Your task to perform on an android device: add a contact in the contacts app Image 0: 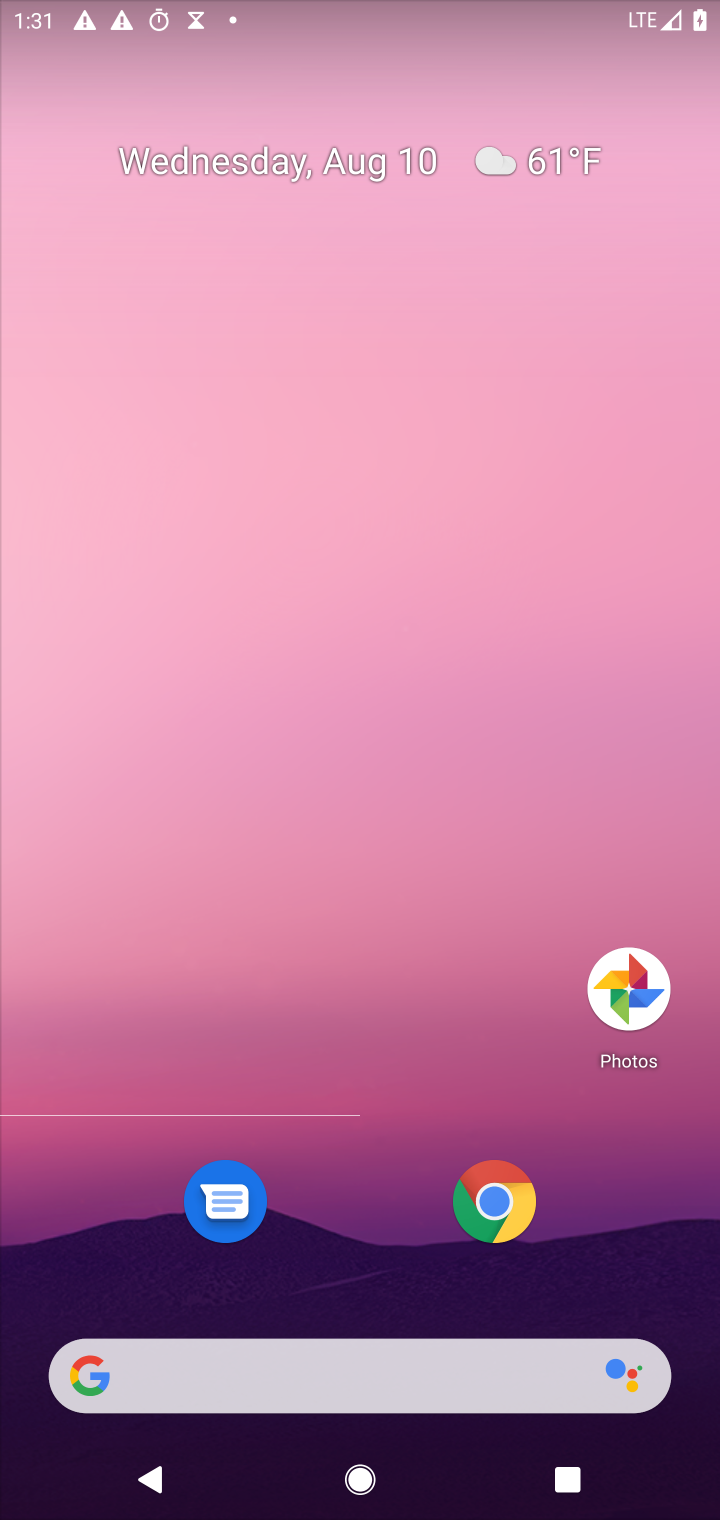
Step 0: press home button
Your task to perform on an android device: add a contact in the contacts app Image 1: 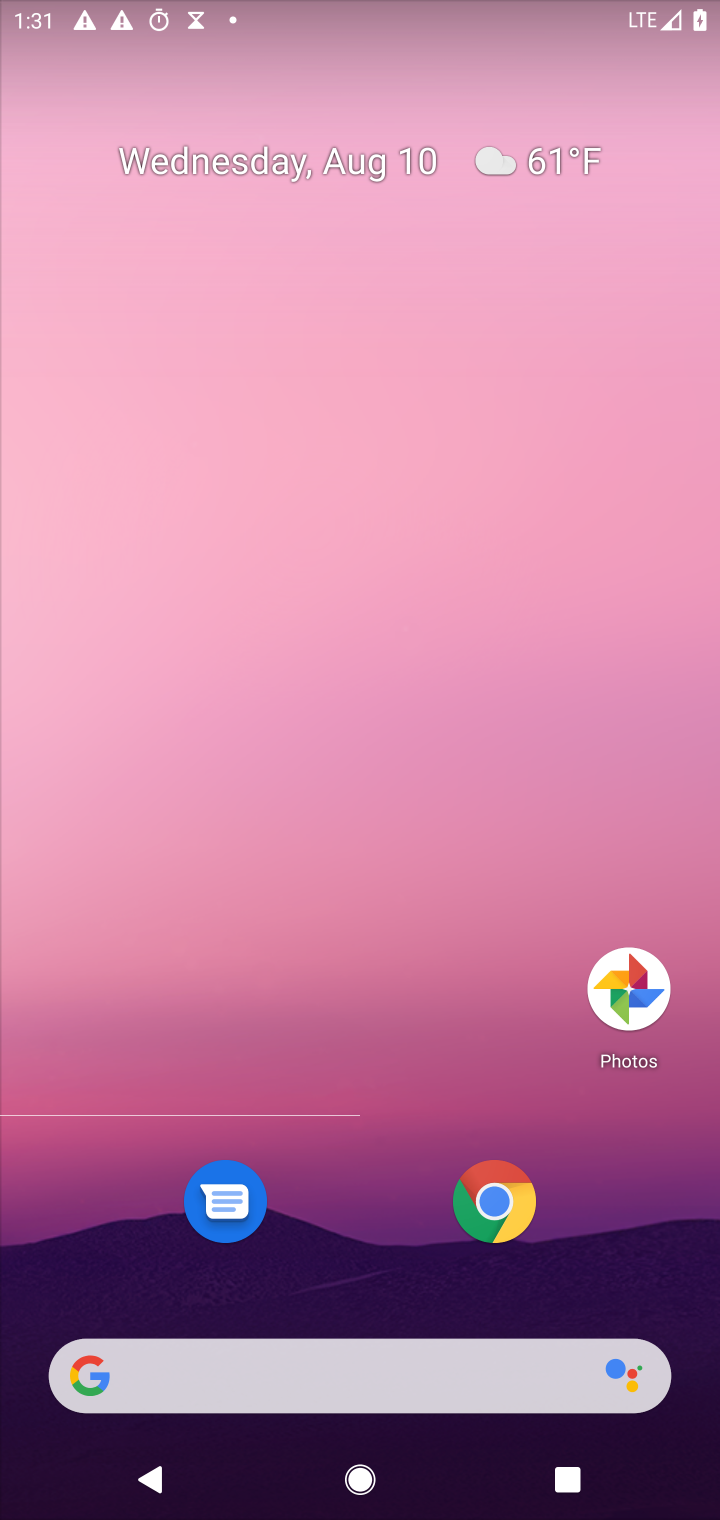
Step 1: drag from (282, 187) to (278, 87)
Your task to perform on an android device: add a contact in the contacts app Image 2: 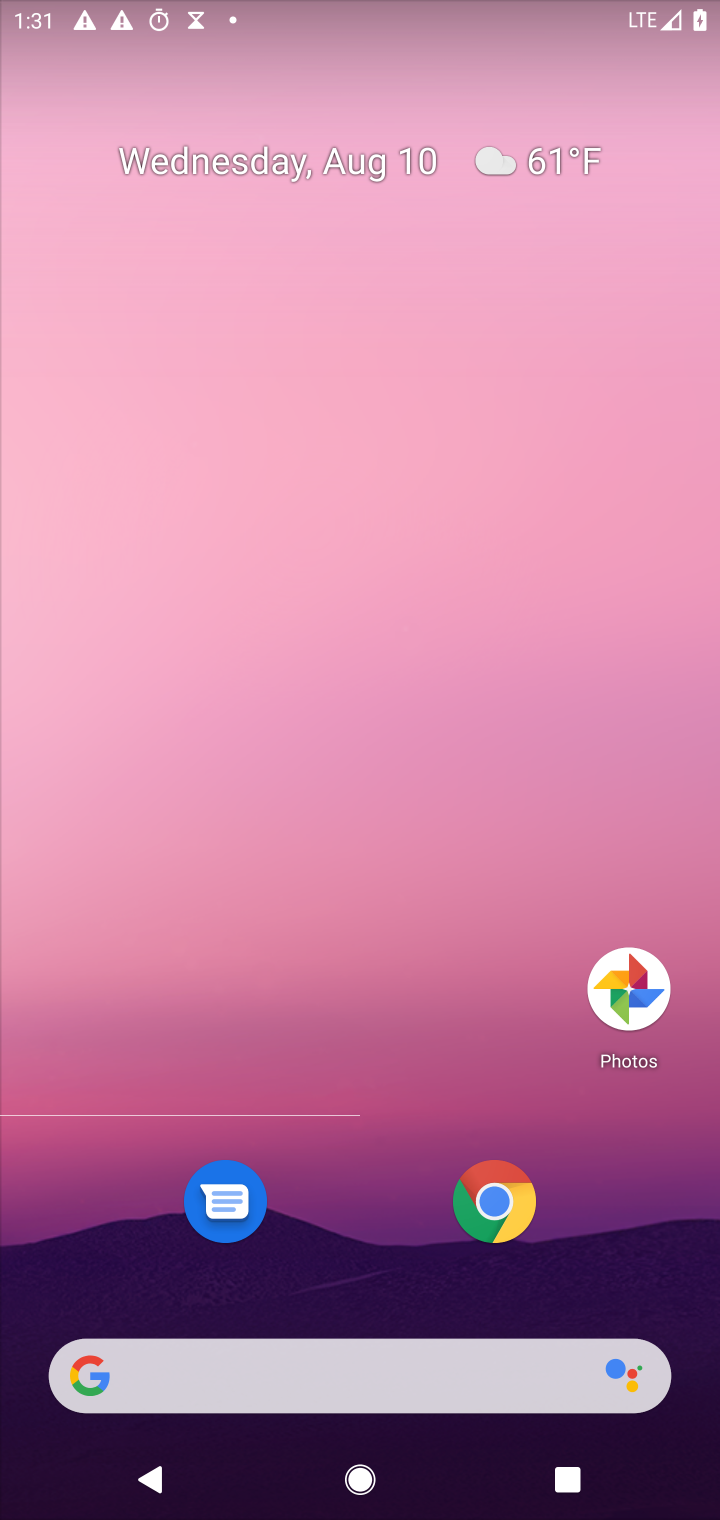
Step 2: drag from (291, 782) to (314, 142)
Your task to perform on an android device: add a contact in the contacts app Image 3: 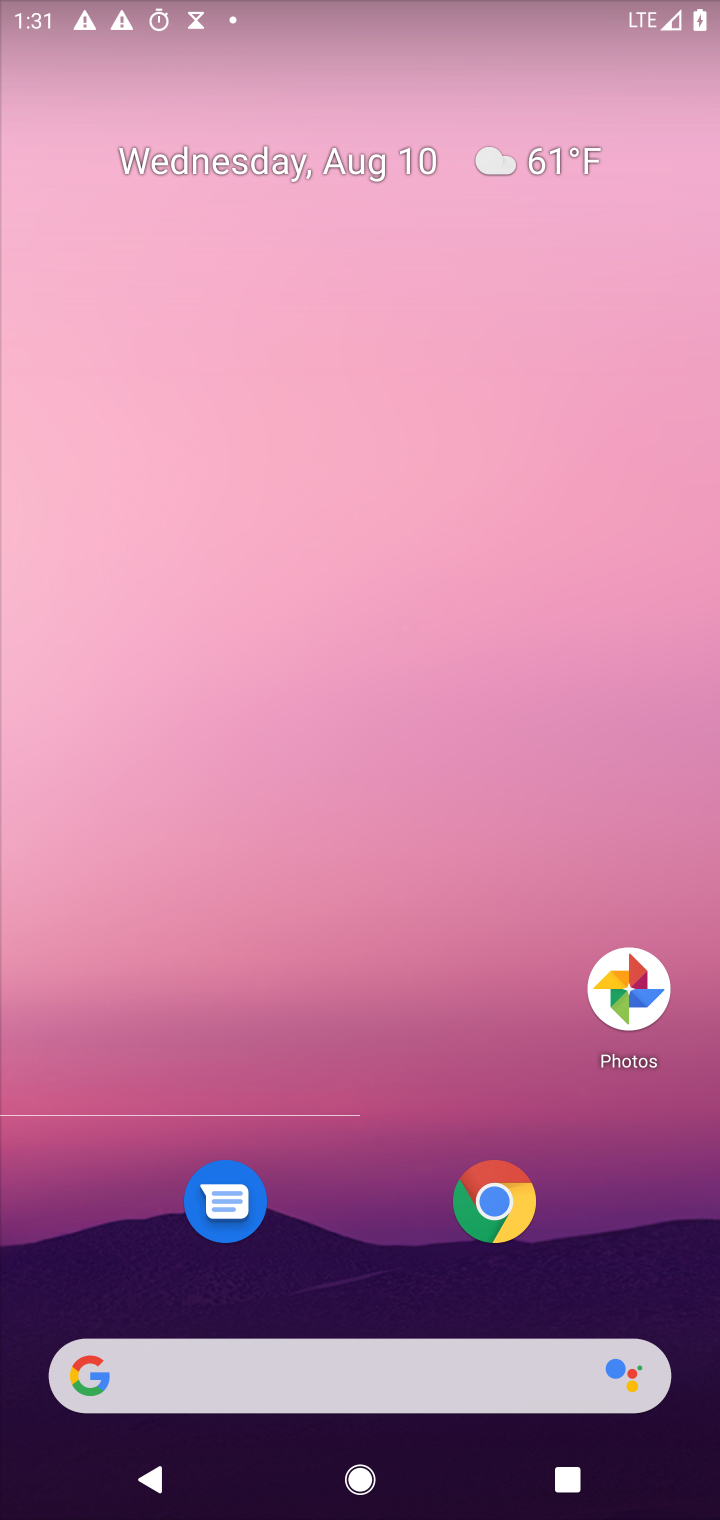
Step 3: drag from (298, 345) to (301, 22)
Your task to perform on an android device: add a contact in the contacts app Image 4: 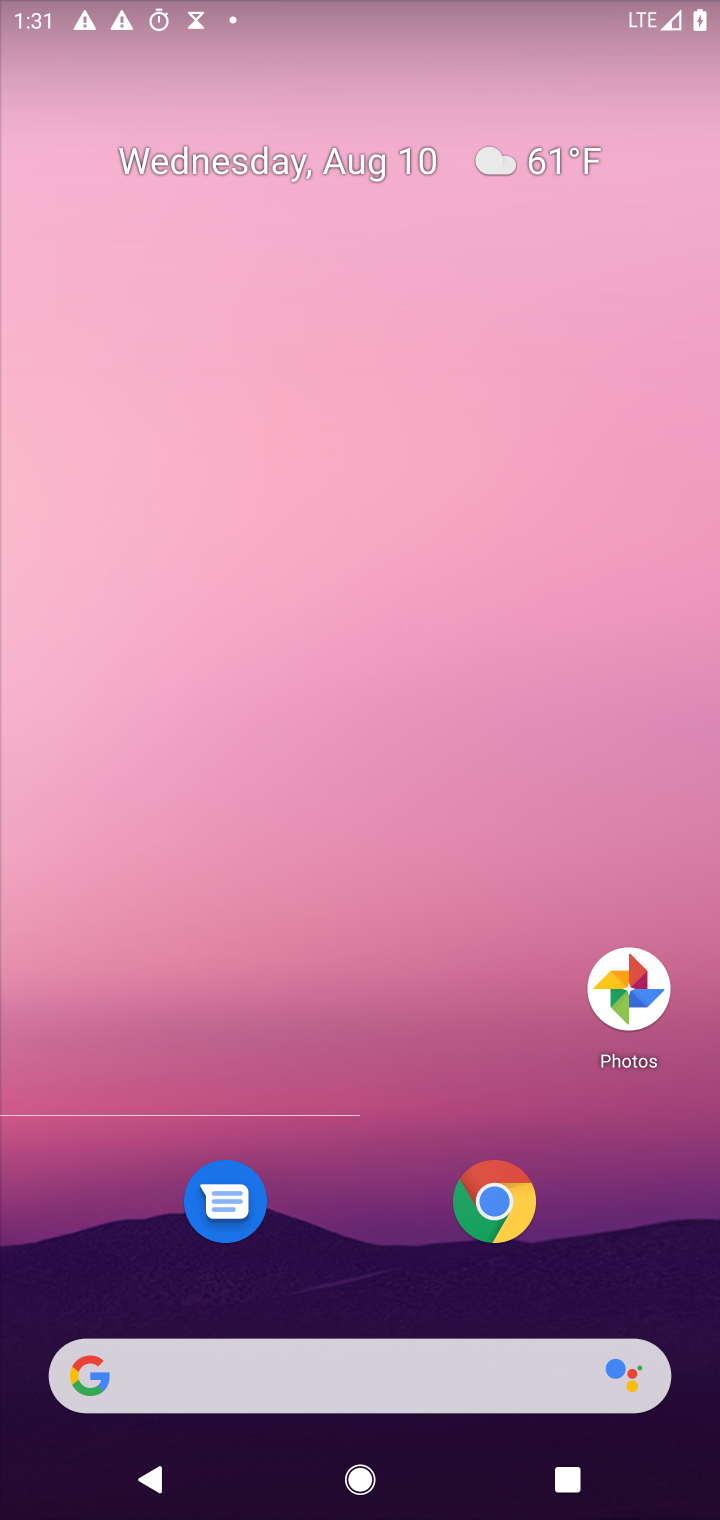
Step 4: drag from (280, 1198) to (309, 22)
Your task to perform on an android device: add a contact in the contacts app Image 5: 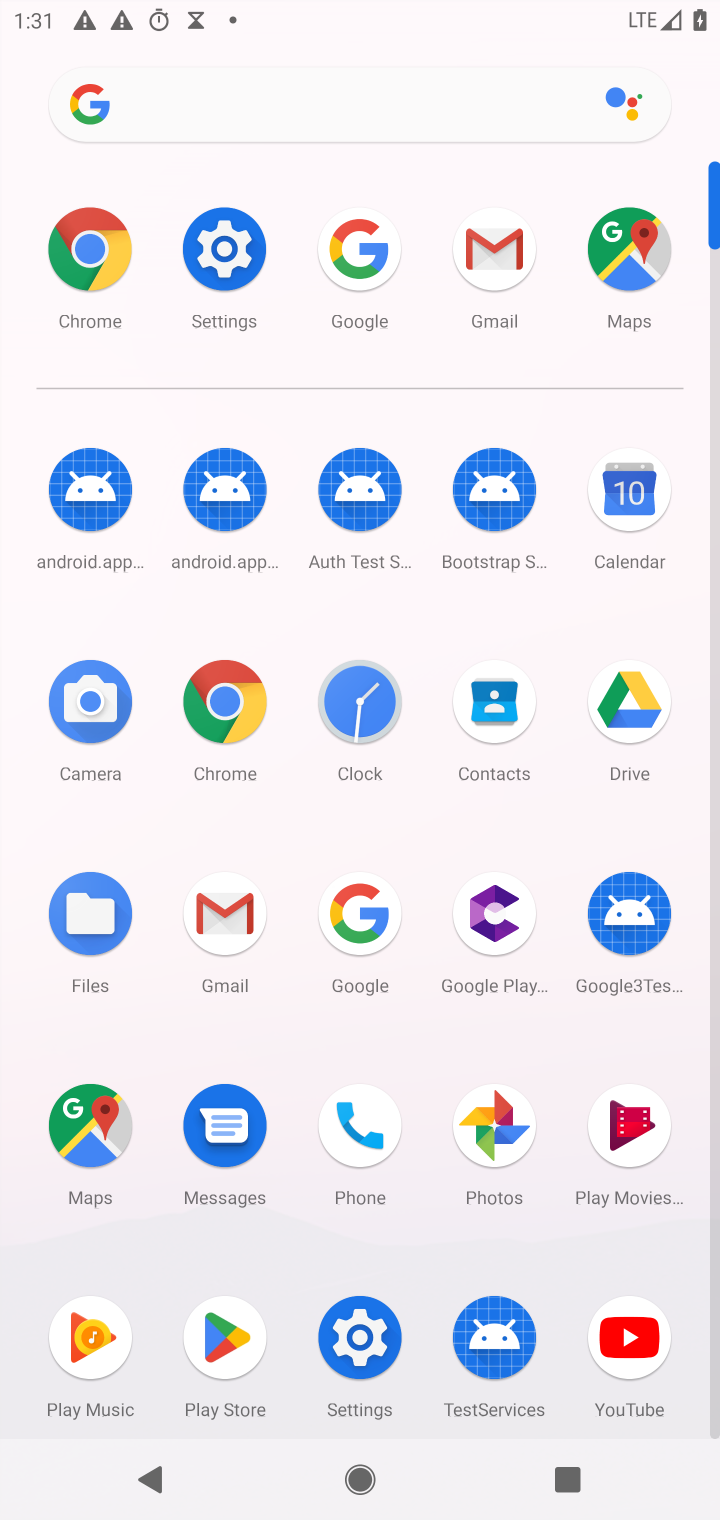
Step 5: click (486, 698)
Your task to perform on an android device: add a contact in the contacts app Image 6: 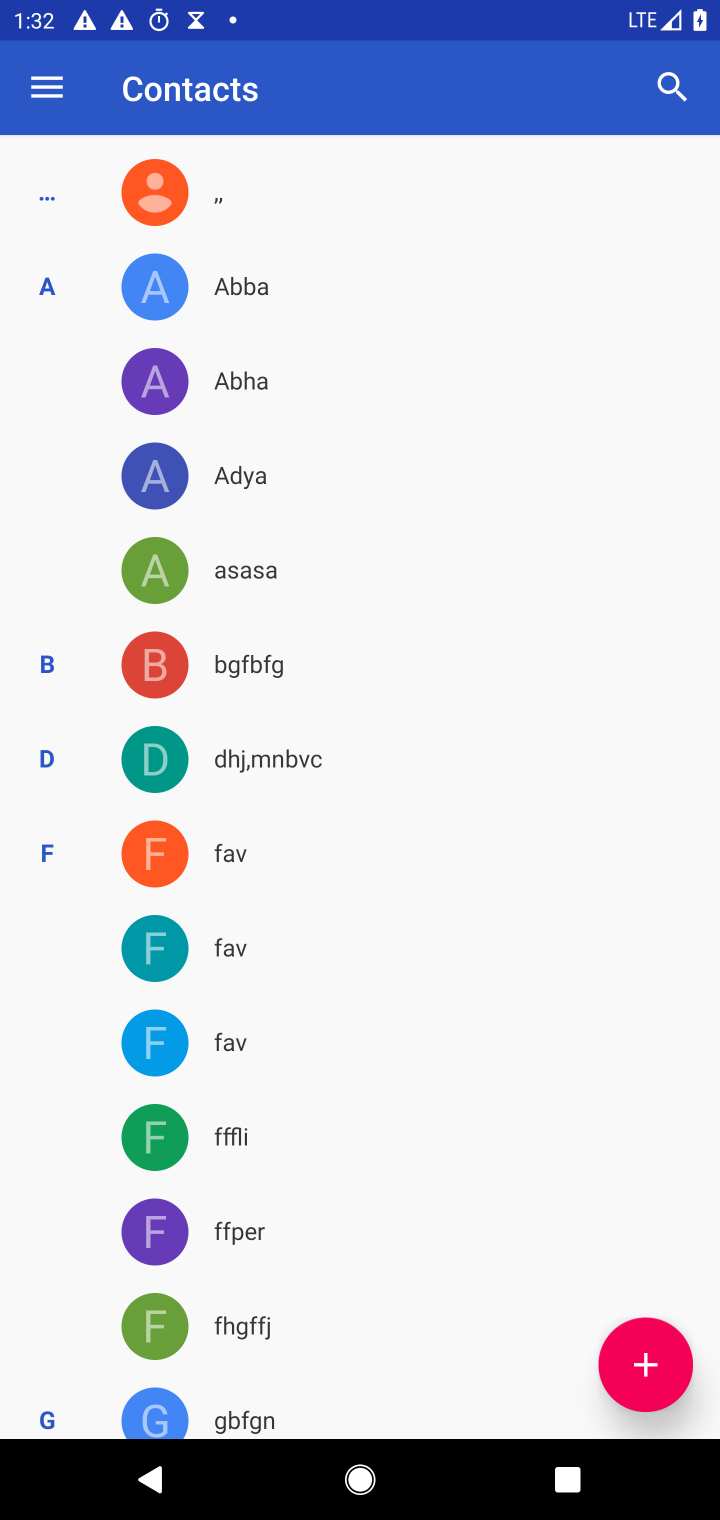
Step 6: click (650, 1369)
Your task to perform on an android device: add a contact in the contacts app Image 7: 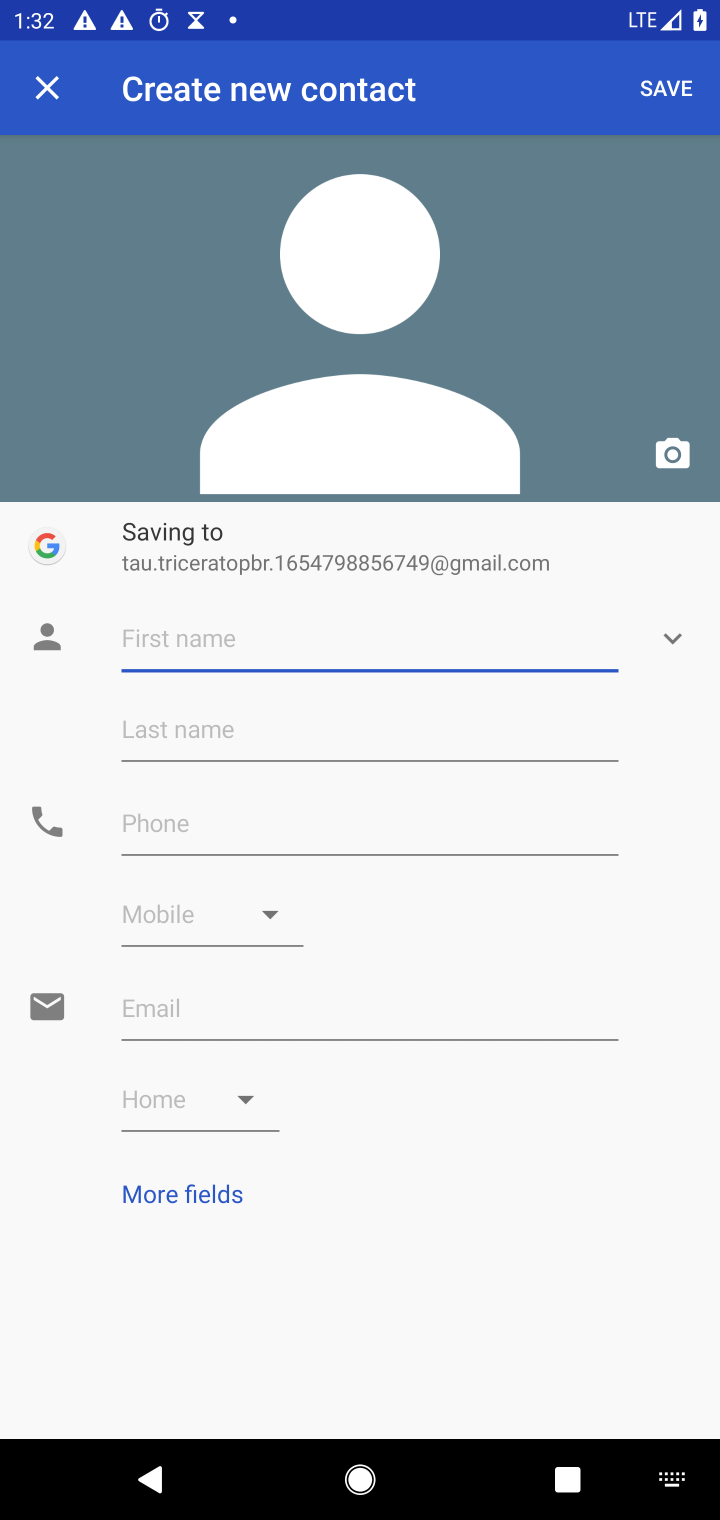
Step 7: type "sffsfsfsfsff"
Your task to perform on an android device: add a contact in the contacts app Image 8: 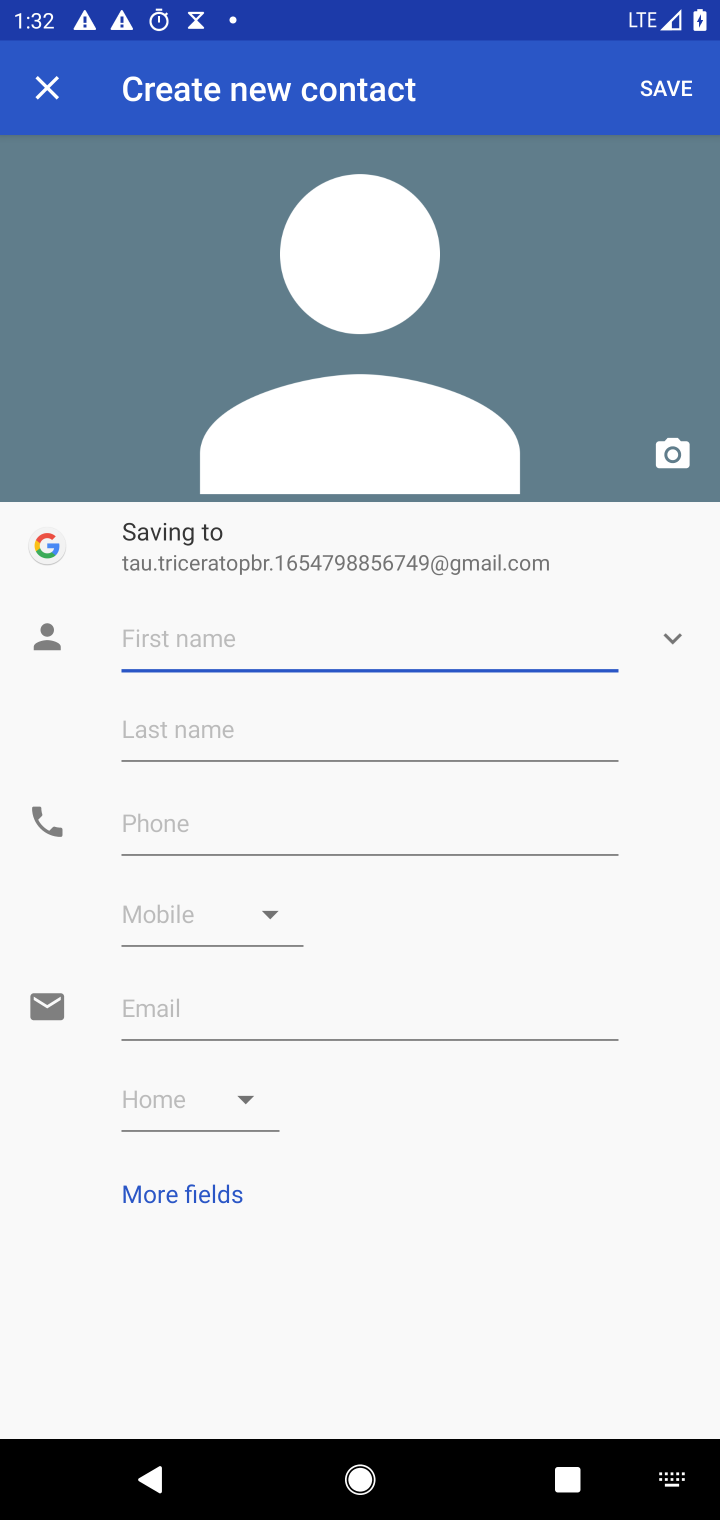
Step 8: click (181, 643)
Your task to perform on an android device: add a contact in the contacts app Image 9: 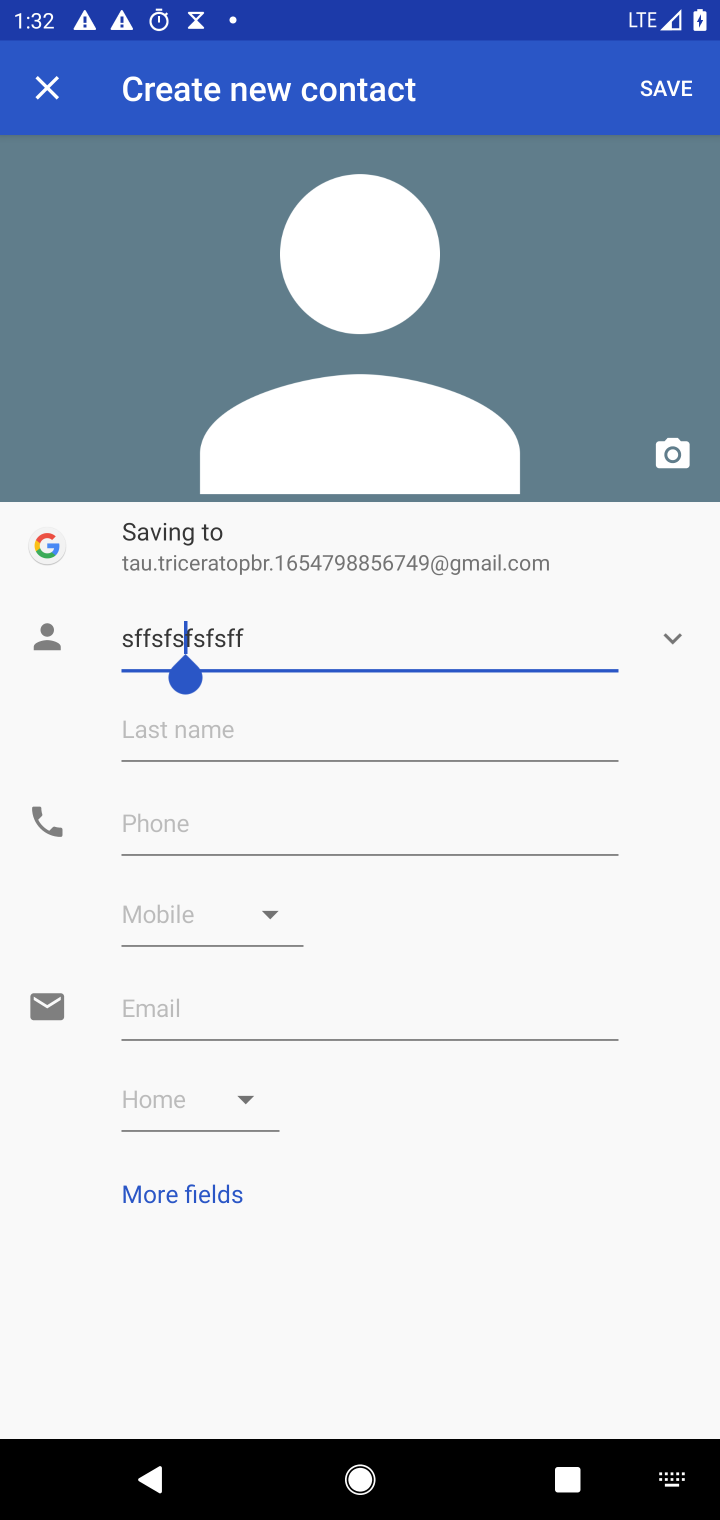
Step 9: click (207, 820)
Your task to perform on an android device: add a contact in the contacts app Image 10: 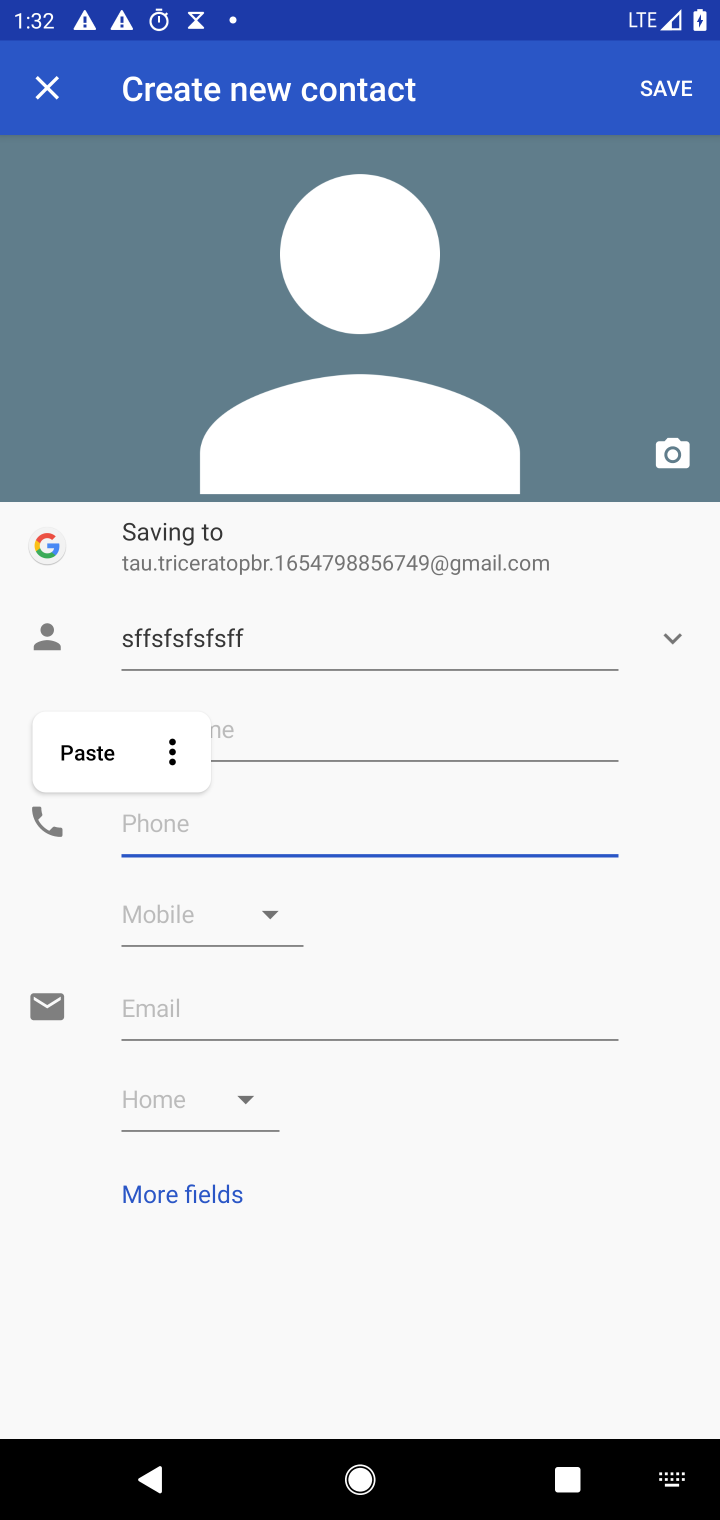
Step 10: type "332324422224"
Your task to perform on an android device: add a contact in the contacts app Image 11: 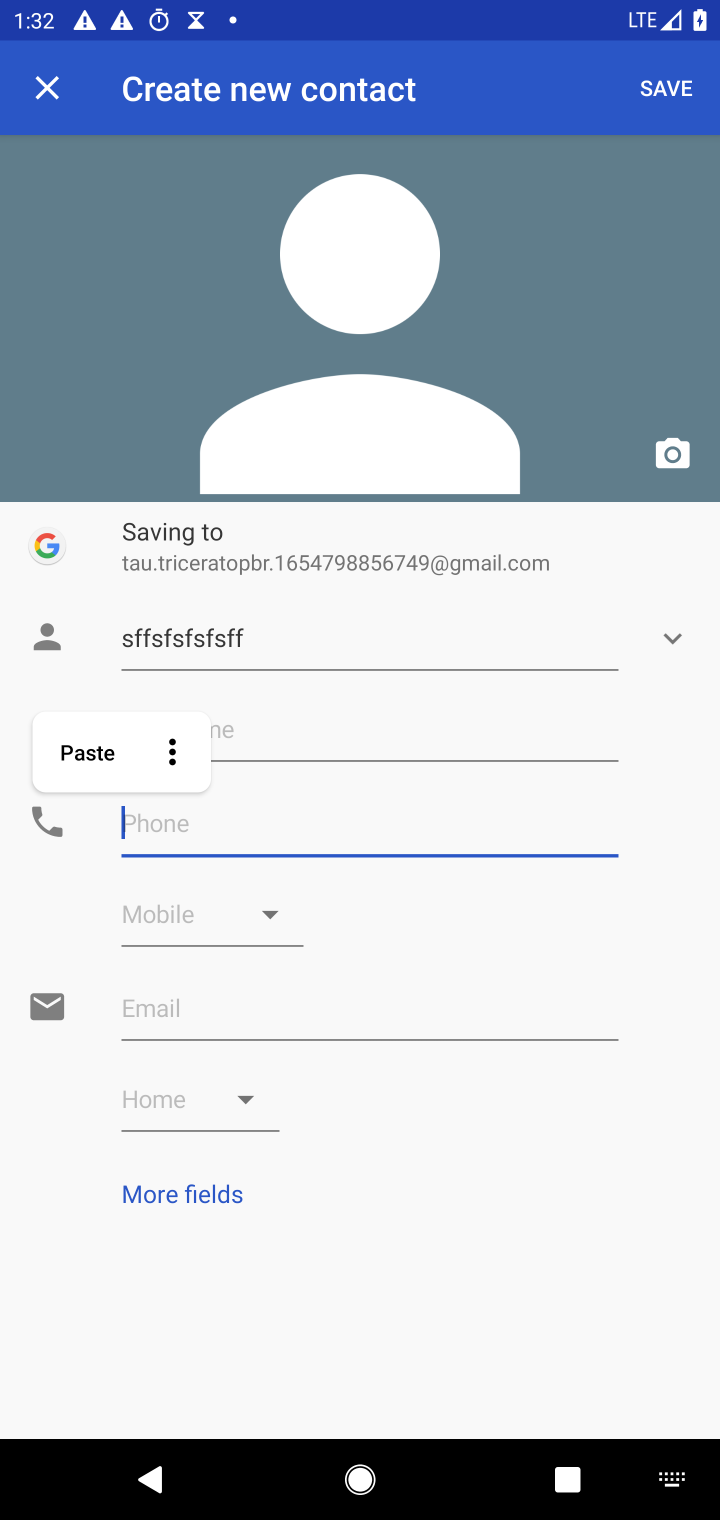
Step 11: click (175, 833)
Your task to perform on an android device: add a contact in the contacts app Image 12: 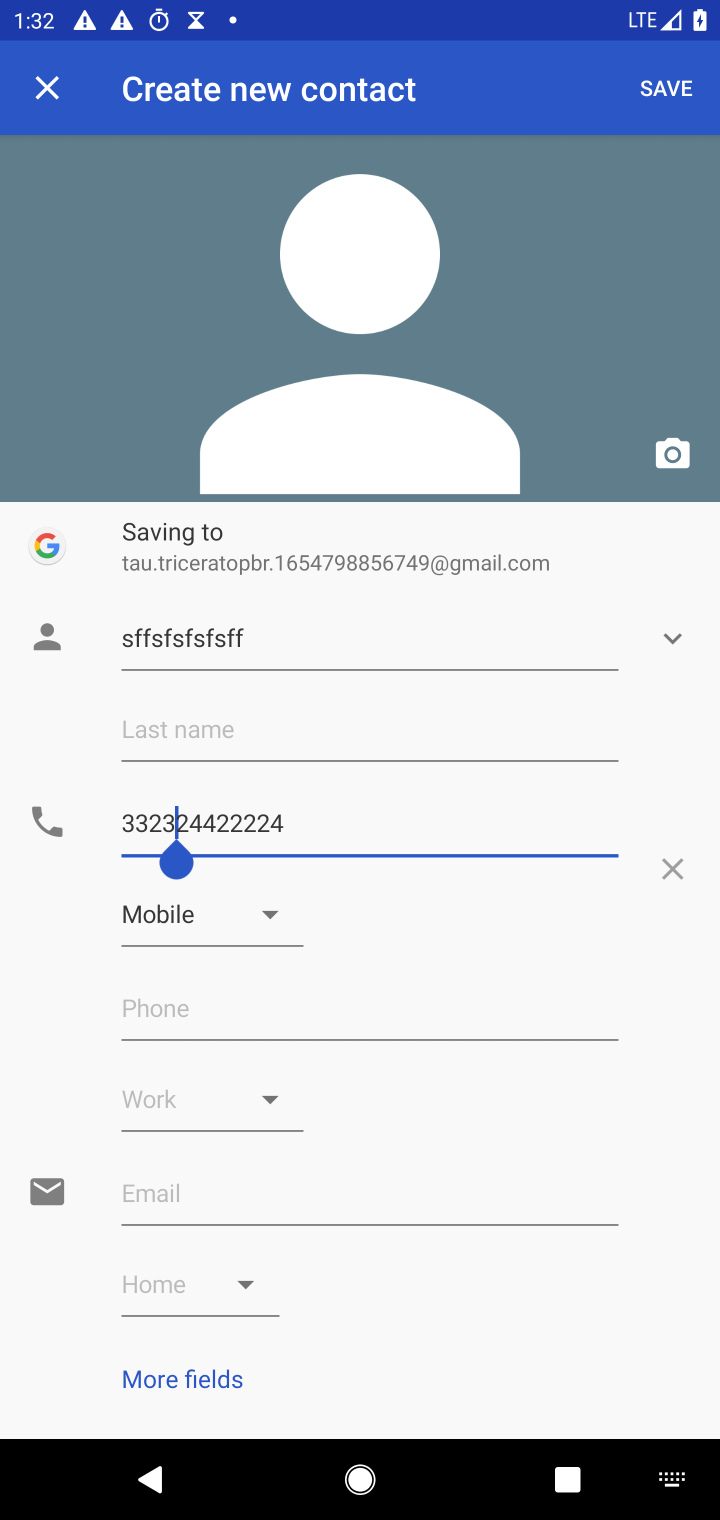
Step 12: click (669, 86)
Your task to perform on an android device: add a contact in the contacts app Image 13: 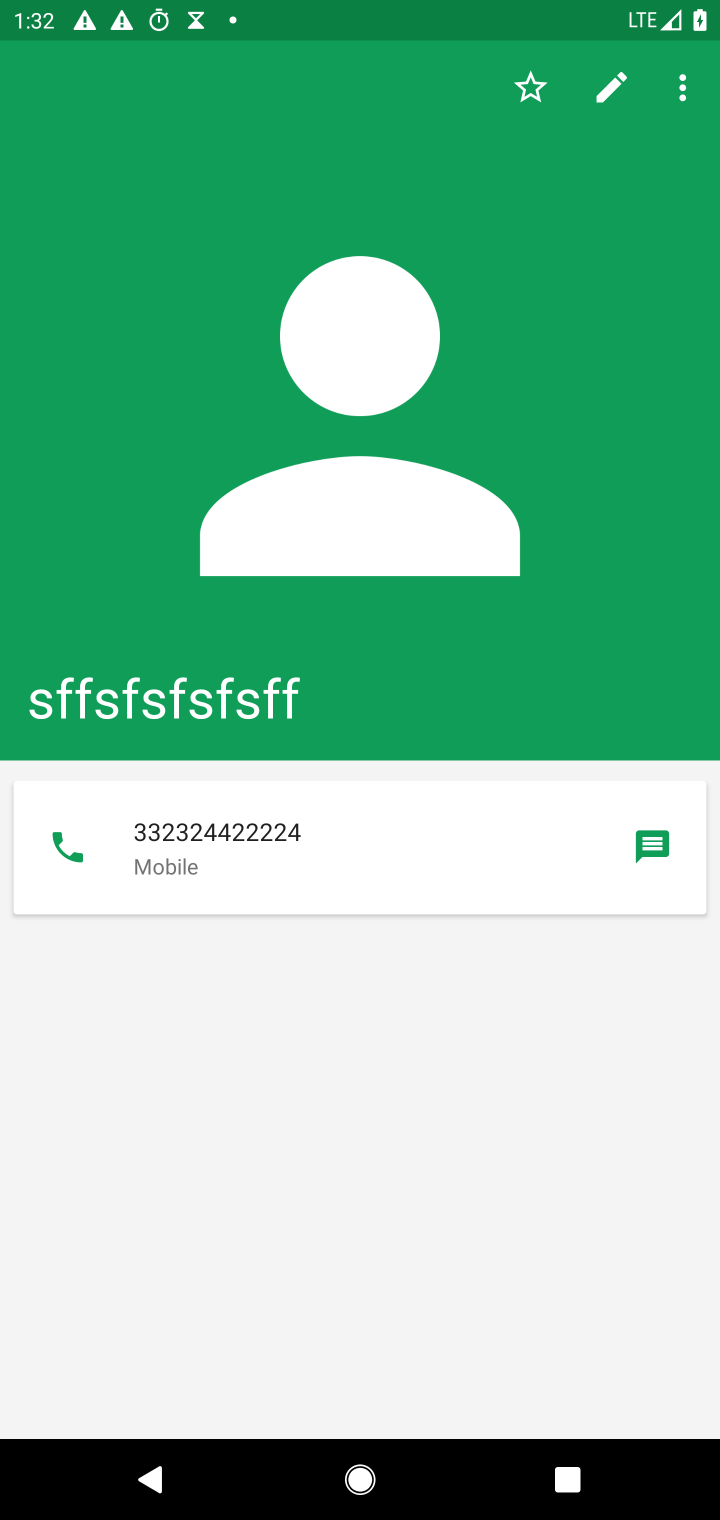
Step 13: task complete